Your task to perform on an android device: Turn on the flashlight Image 0: 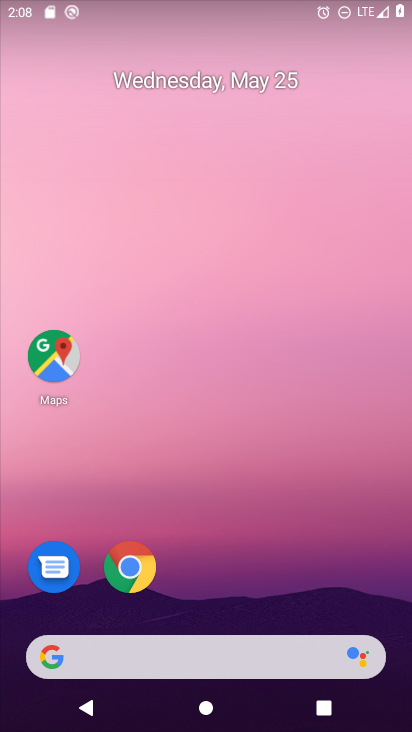
Step 0: click (361, 413)
Your task to perform on an android device: Turn on the flashlight Image 1: 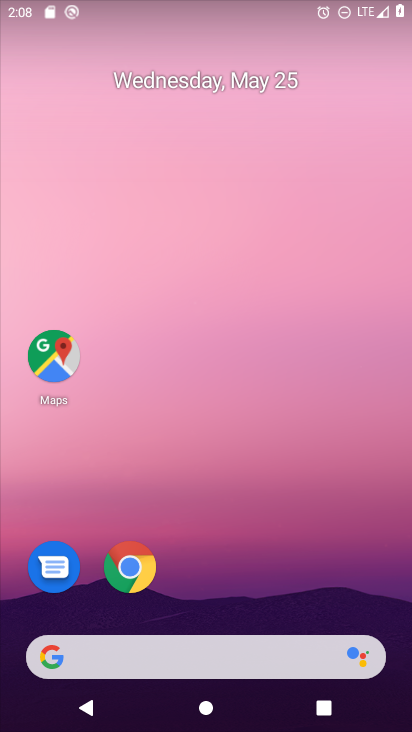
Step 1: drag from (402, 691) to (402, 594)
Your task to perform on an android device: Turn on the flashlight Image 2: 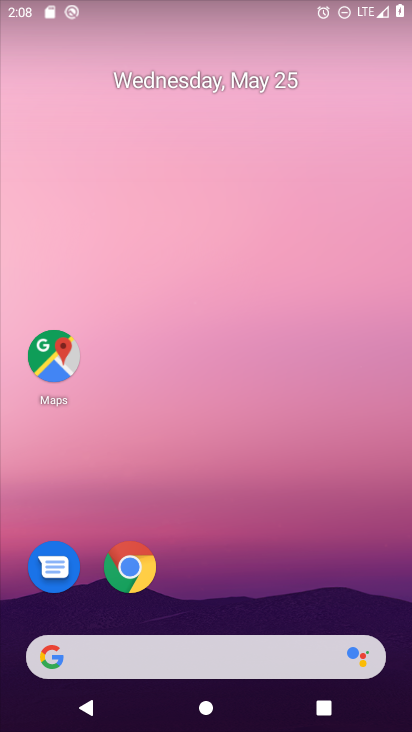
Step 2: drag from (397, 682) to (398, 203)
Your task to perform on an android device: Turn on the flashlight Image 3: 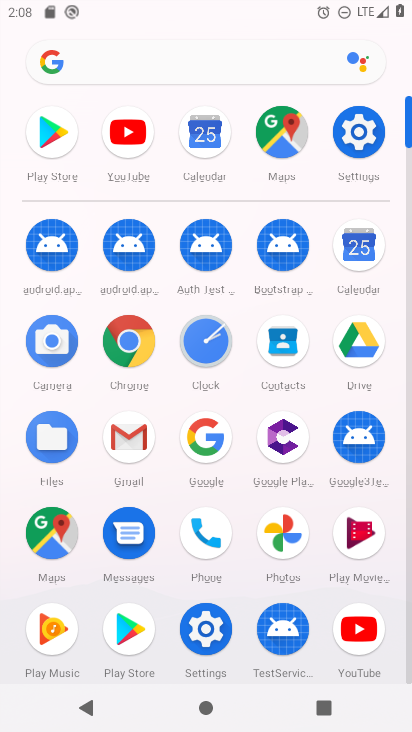
Step 3: click (356, 138)
Your task to perform on an android device: Turn on the flashlight Image 4: 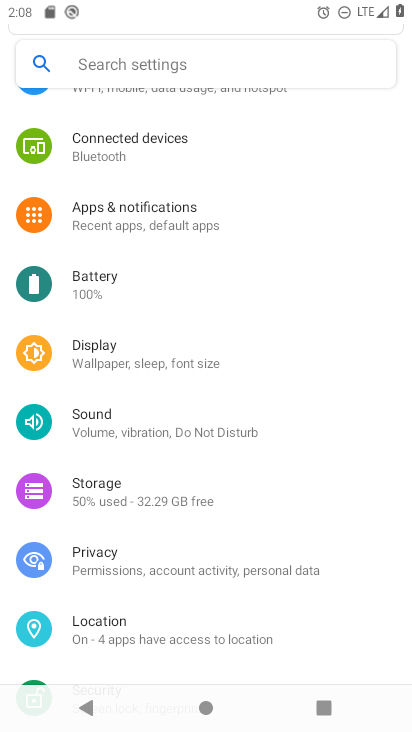
Step 4: click (93, 344)
Your task to perform on an android device: Turn on the flashlight Image 5: 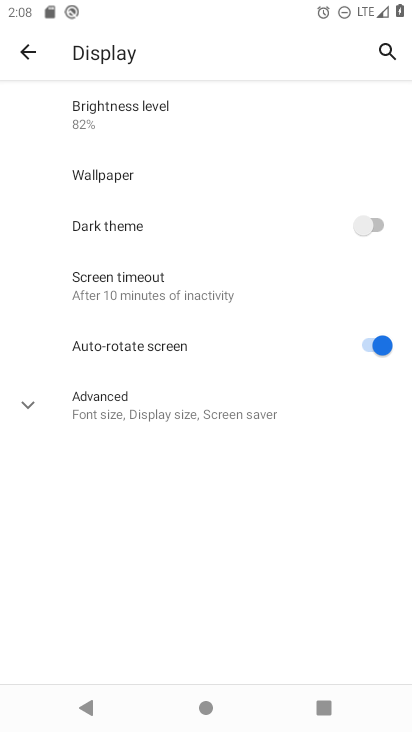
Step 5: task complete